Your task to perform on an android device: Show me popular videos on Youtube Image 0: 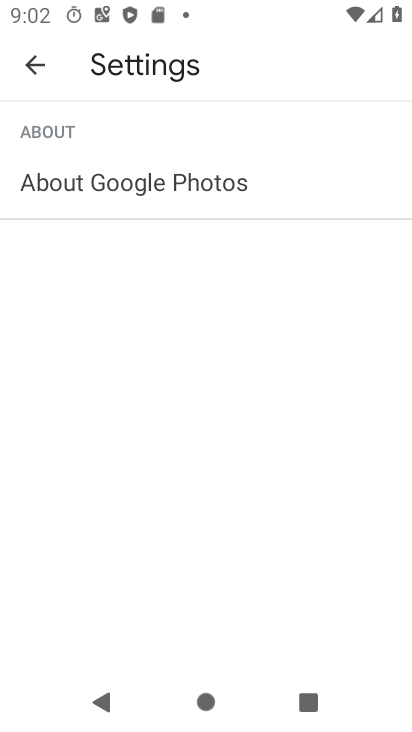
Step 0: press home button
Your task to perform on an android device: Show me popular videos on Youtube Image 1: 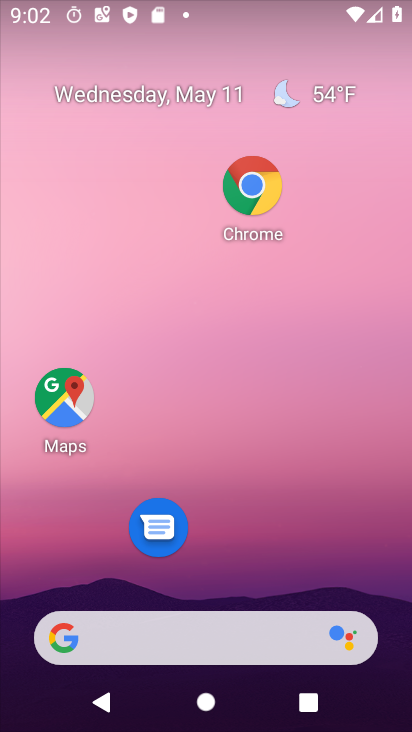
Step 1: drag from (239, 543) to (229, 49)
Your task to perform on an android device: Show me popular videos on Youtube Image 2: 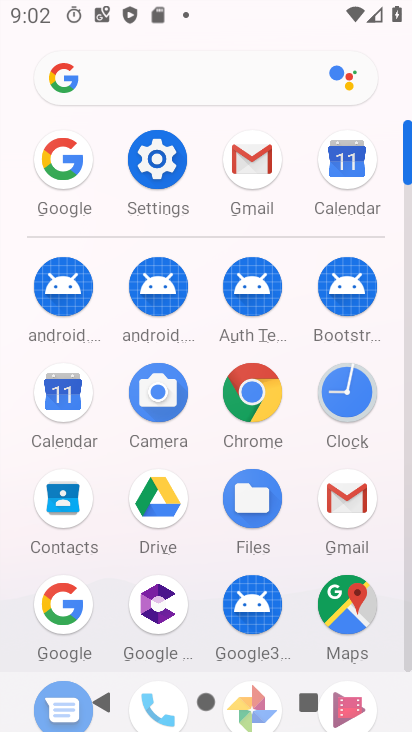
Step 2: drag from (207, 482) to (200, 124)
Your task to perform on an android device: Show me popular videos on Youtube Image 3: 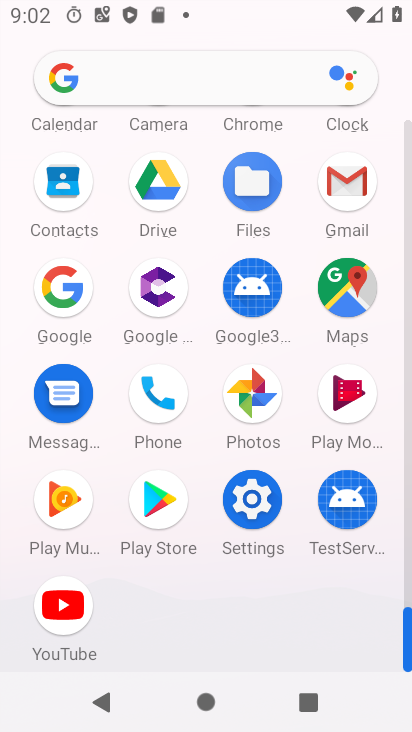
Step 3: click (63, 610)
Your task to perform on an android device: Show me popular videos on Youtube Image 4: 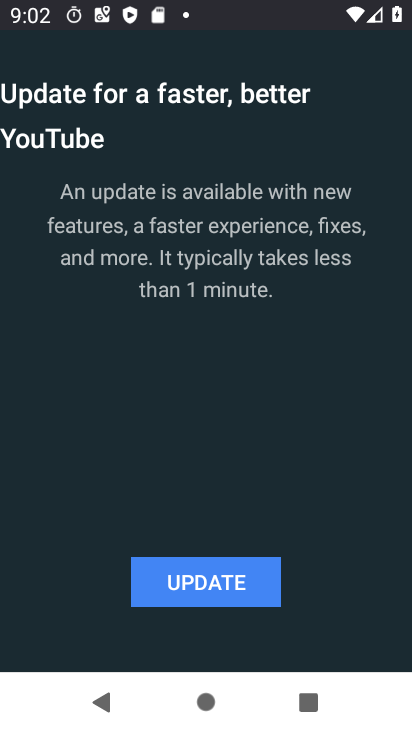
Step 4: click (213, 582)
Your task to perform on an android device: Show me popular videos on Youtube Image 5: 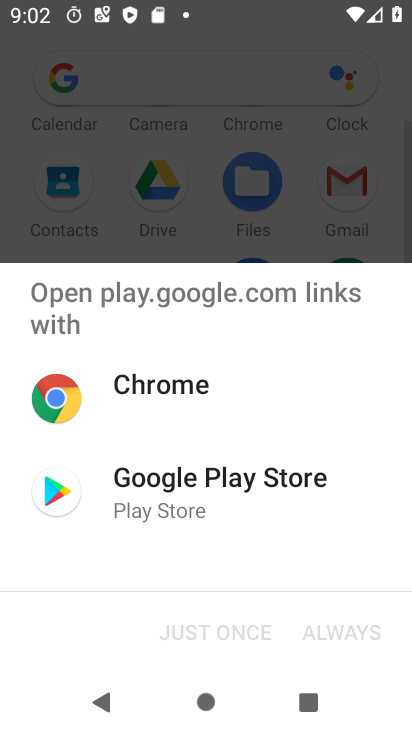
Step 5: click (178, 487)
Your task to perform on an android device: Show me popular videos on Youtube Image 6: 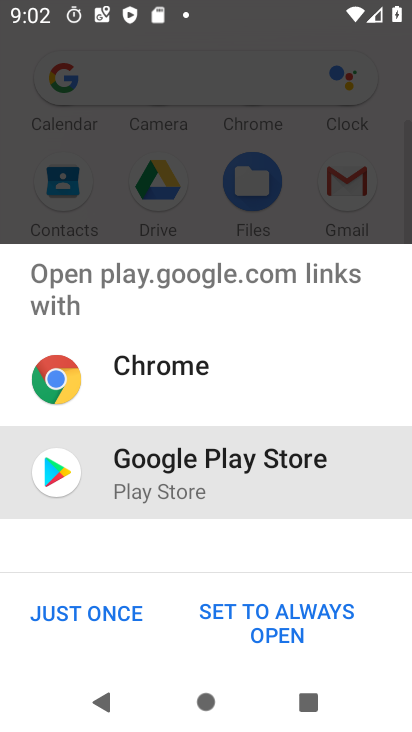
Step 6: click (111, 606)
Your task to perform on an android device: Show me popular videos on Youtube Image 7: 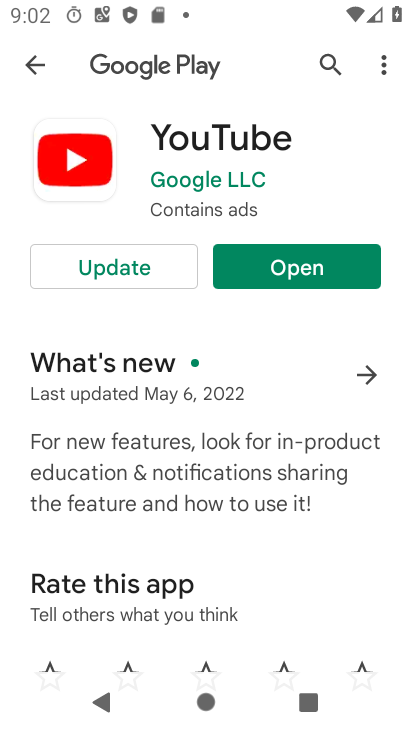
Step 7: click (146, 271)
Your task to perform on an android device: Show me popular videos on Youtube Image 8: 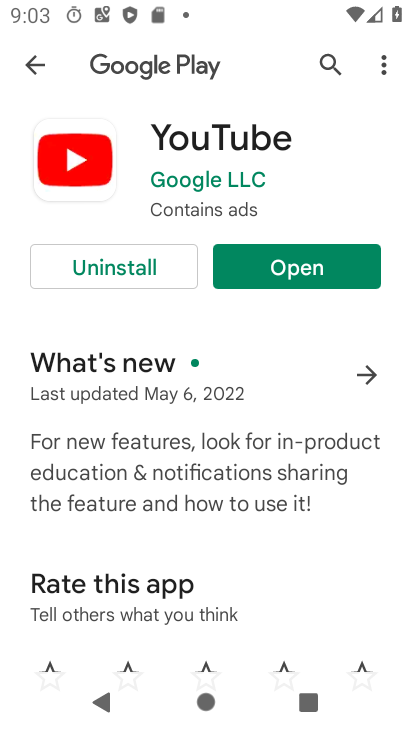
Step 8: click (278, 264)
Your task to perform on an android device: Show me popular videos on Youtube Image 9: 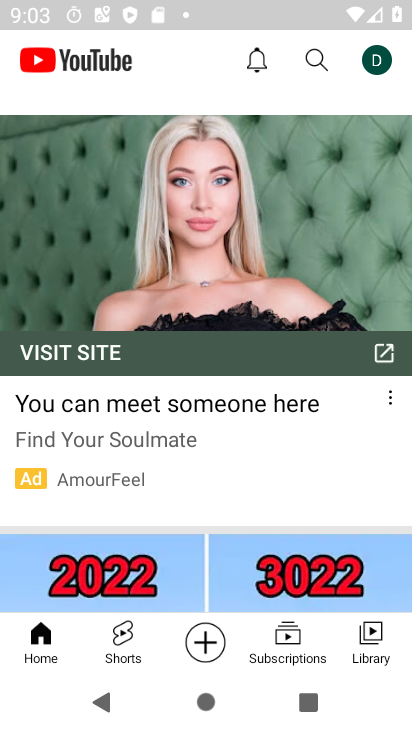
Step 9: task complete